Your task to perform on an android device: turn off wifi Image 0: 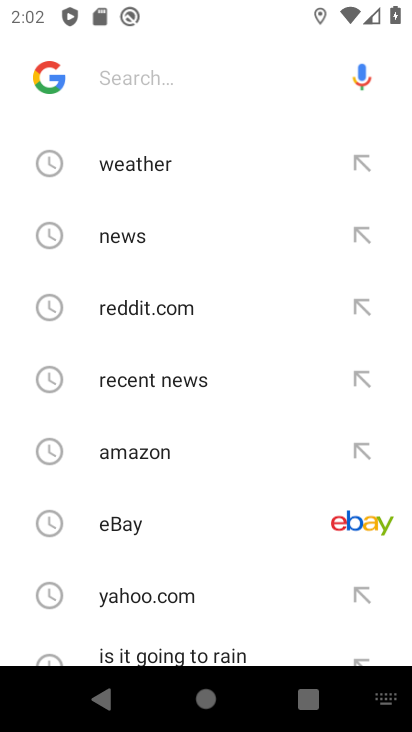
Step 0: press back button
Your task to perform on an android device: turn off wifi Image 1: 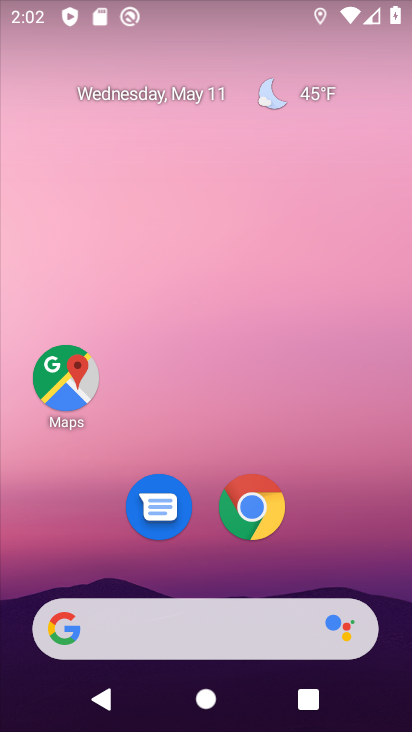
Step 1: drag from (336, 533) to (279, 16)
Your task to perform on an android device: turn off wifi Image 2: 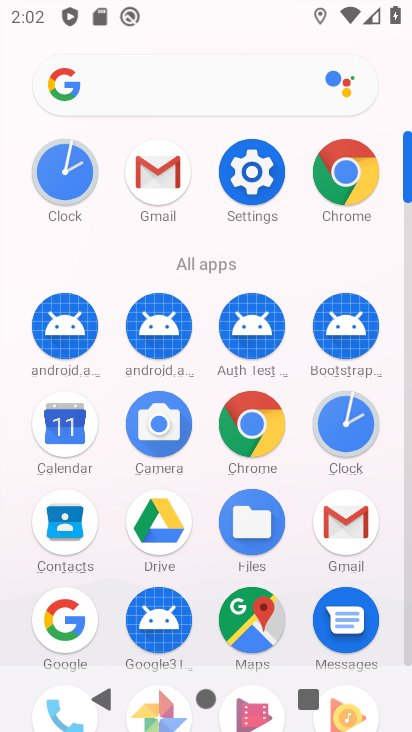
Step 2: click (257, 196)
Your task to perform on an android device: turn off wifi Image 3: 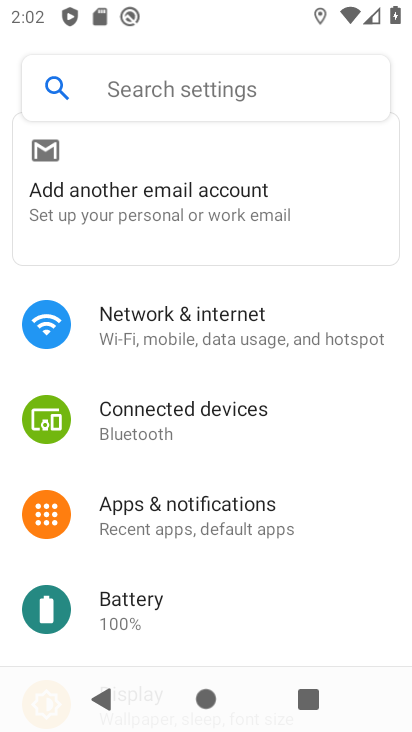
Step 3: click (222, 323)
Your task to perform on an android device: turn off wifi Image 4: 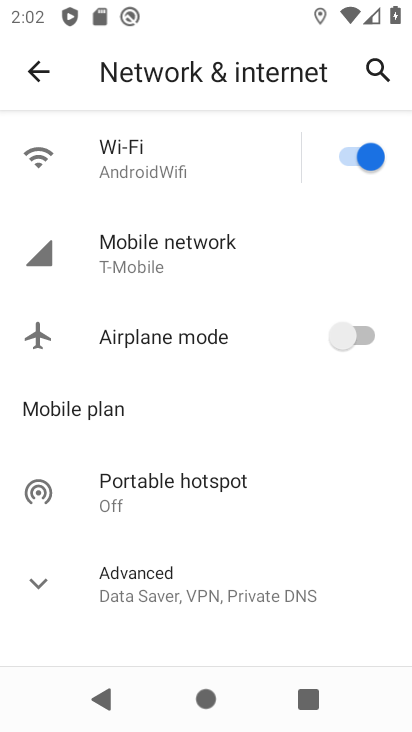
Step 4: click (356, 150)
Your task to perform on an android device: turn off wifi Image 5: 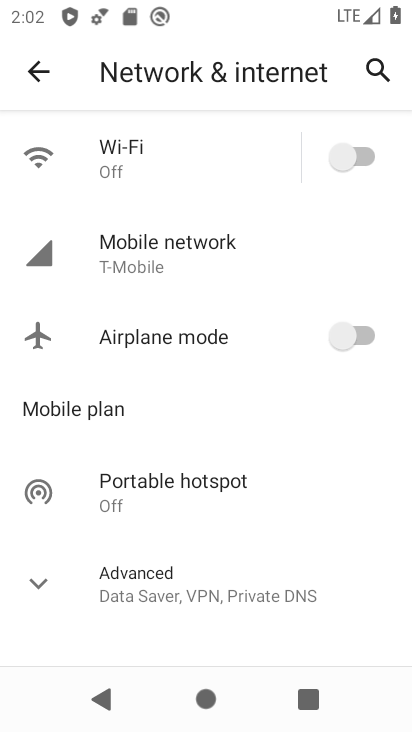
Step 5: task complete